Your task to perform on an android device: see sites visited before in the chrome app Image 0: 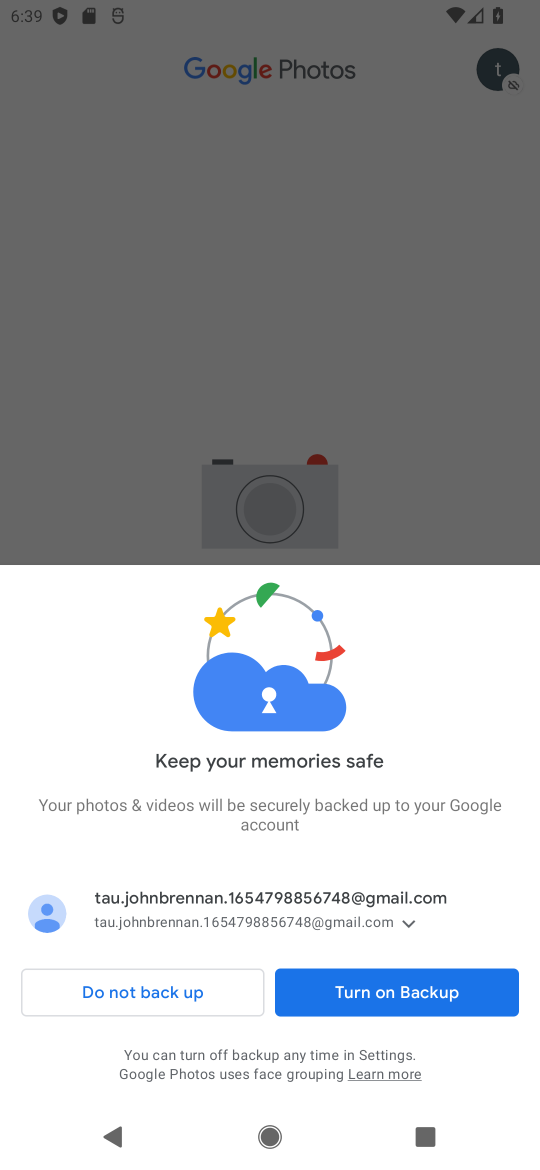
Step 0: press home button
Your task to perform on an android device: see sites visited before in the chrome app Image 1: 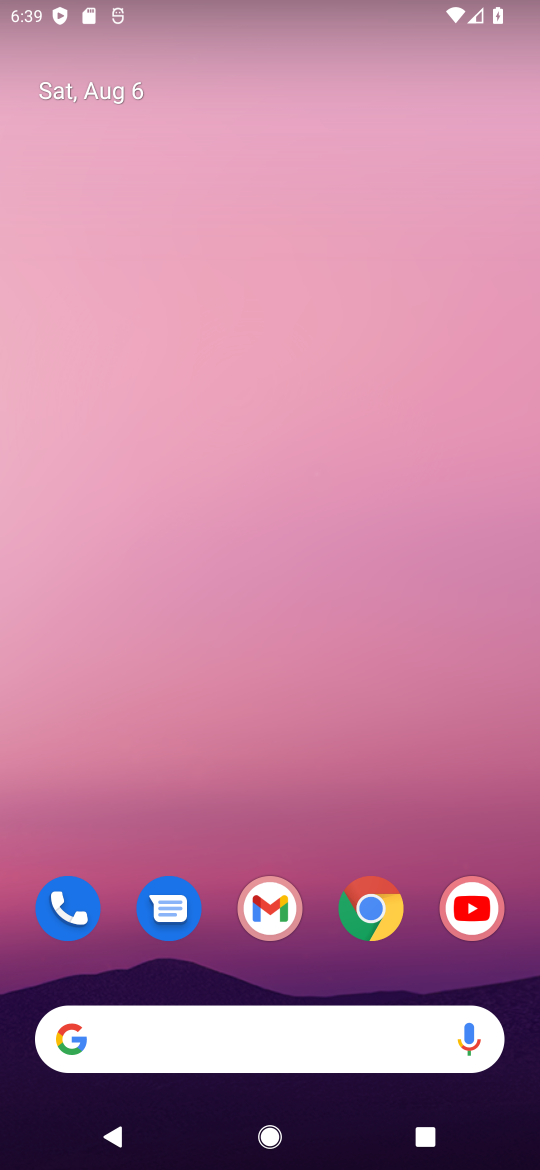
Step 1: click (384, 905)
Your task to perform on an android device: see sites visited before in the chrome app Image 2: 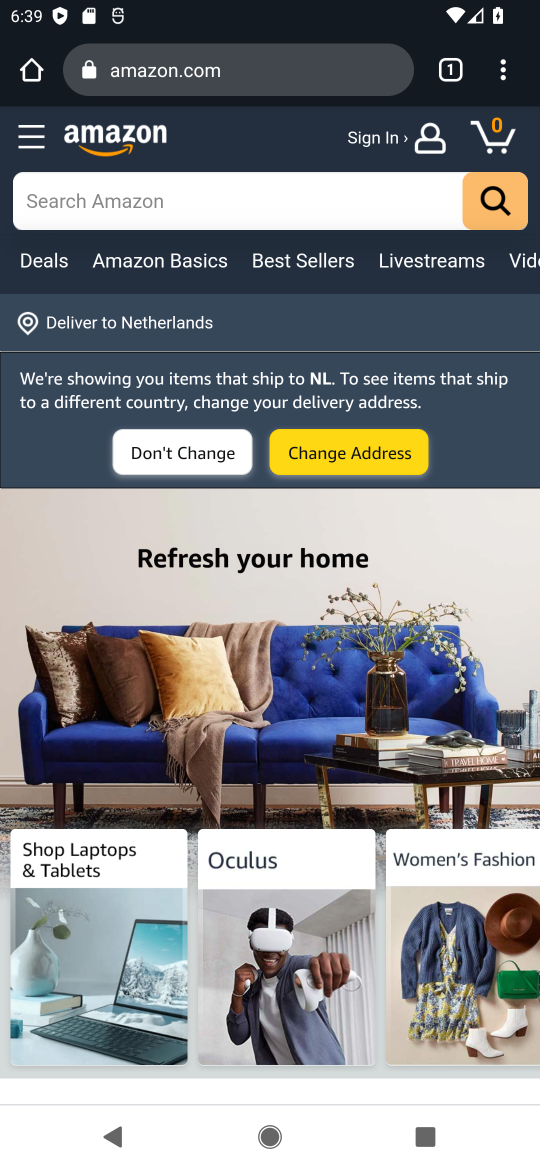
Step 2: click (509, 66)
Your task to perform on an android device: see sites visited before in the chrome app Image 3: 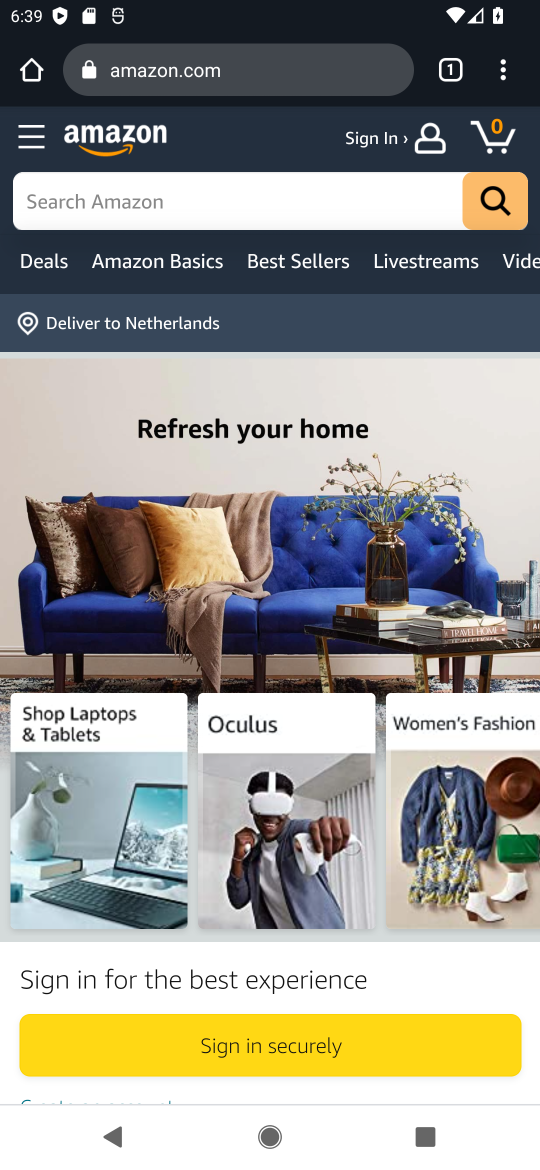
Step 3: click (503, 93)
Your task to perform on an android device: see sites visited before in the chrome app Image 4: 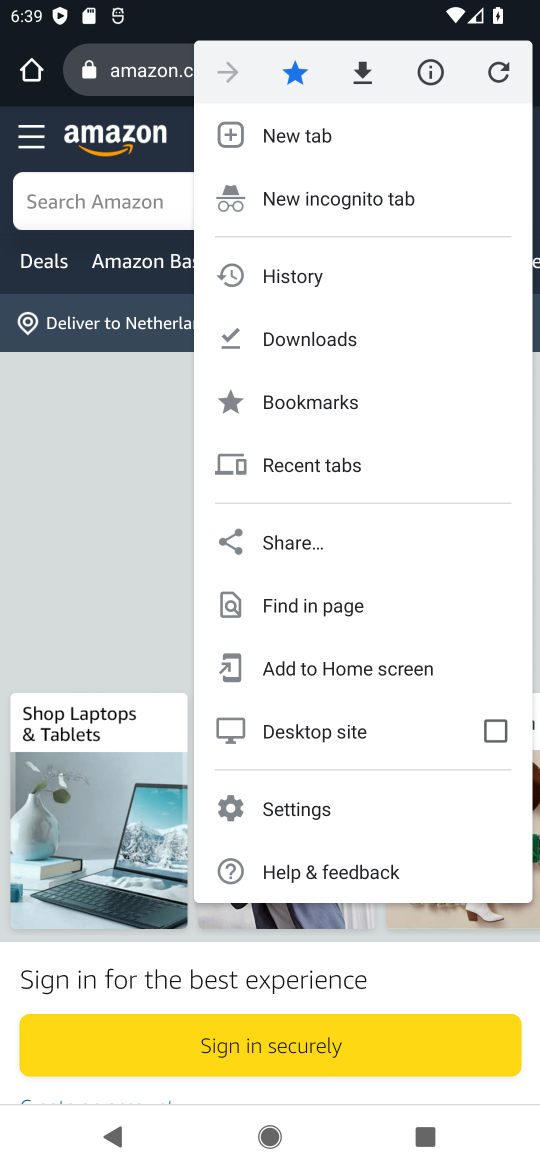
Step 4: click (302, 282)
Your task to perform on an android device: see sites visited before in the chrome app Image 5: 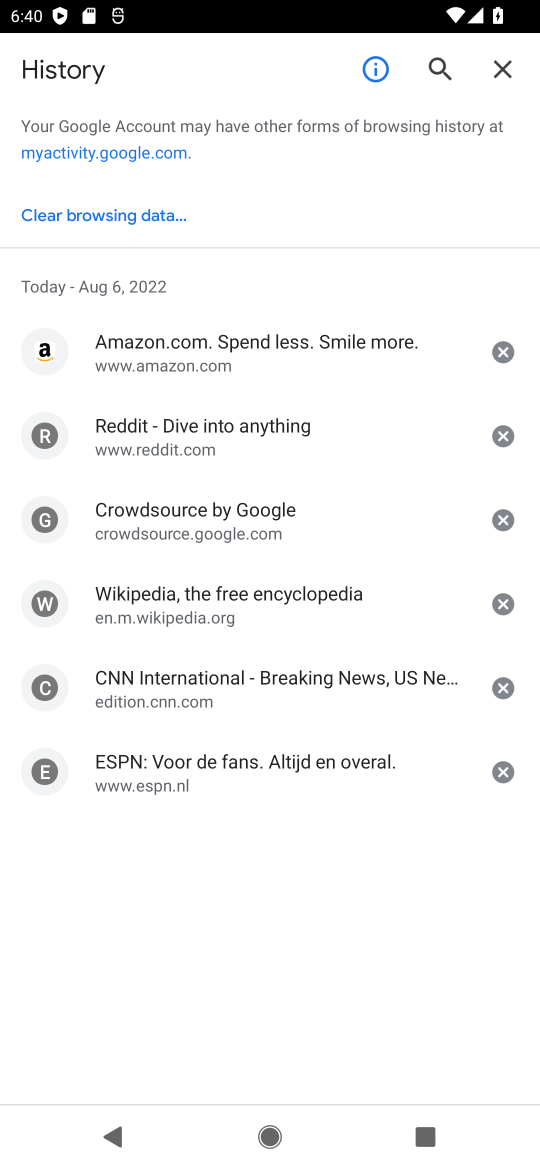
Step 5: task complete